Your task to perform on an android device: open a bookmark in the chrome app Image 0: 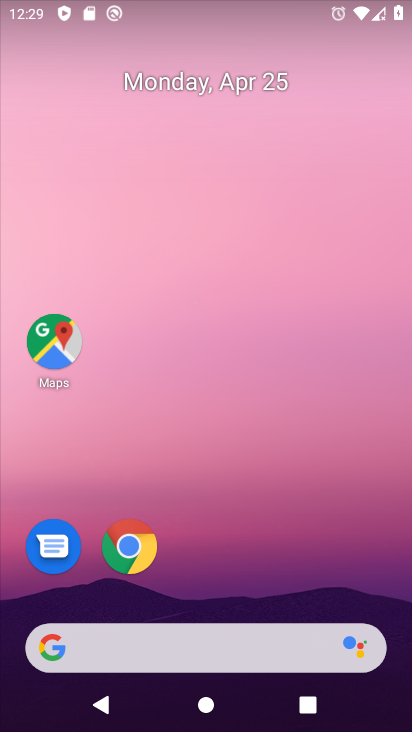
Step 0: click (136, 540)
Your task to perform on an android device: open a bookmark in the chrome app Image 1: 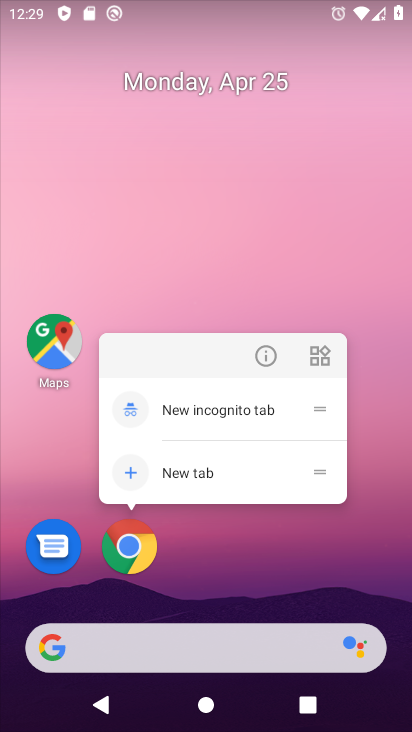
Step 1: click (128, 551)
Your task to perform on an android device: open a bookmark in the chrome app Image 2: 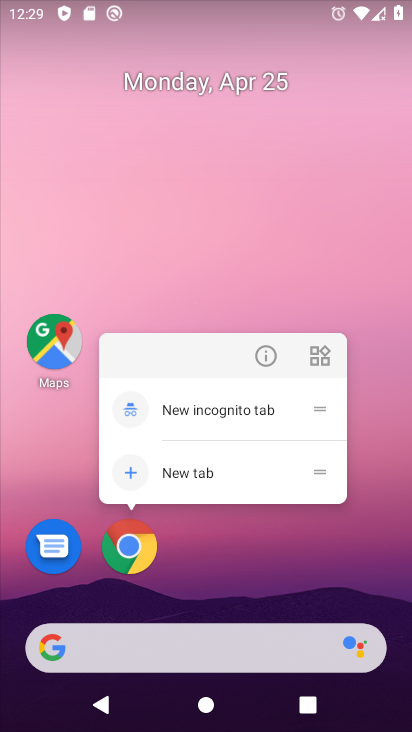
Step 2: click (207, 478)
Your task to perform on an android device: open a bookmark in the chrome app Image 3: 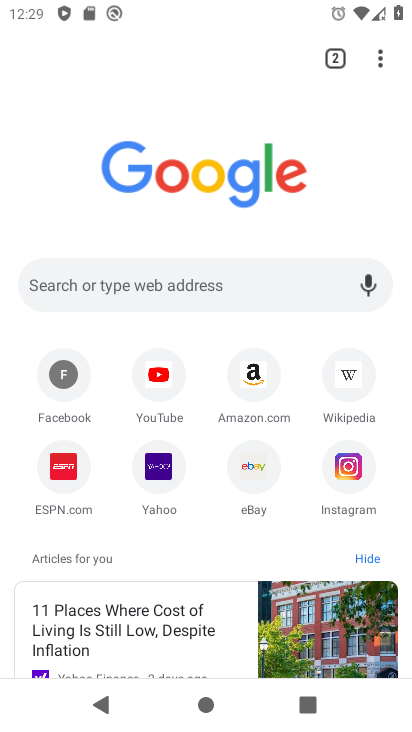
Step 3: click (378, 58)
Your task to perform on an android device: open a bookmark in the chrome app Image 4: 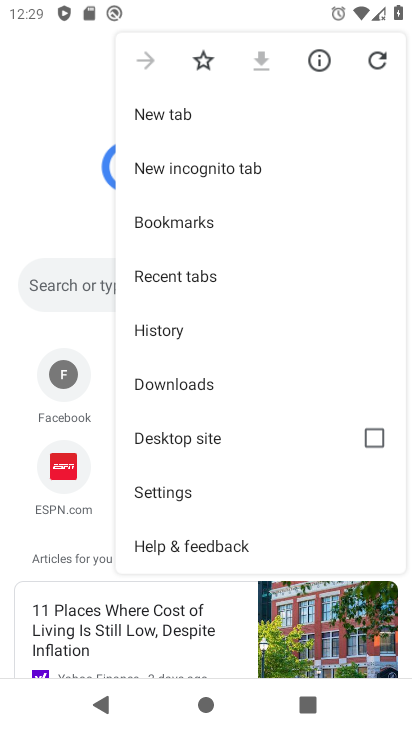
Step 4: click (169, 229)
Your task to perform on an android device: open a bookmark in the chrome app Image 5: 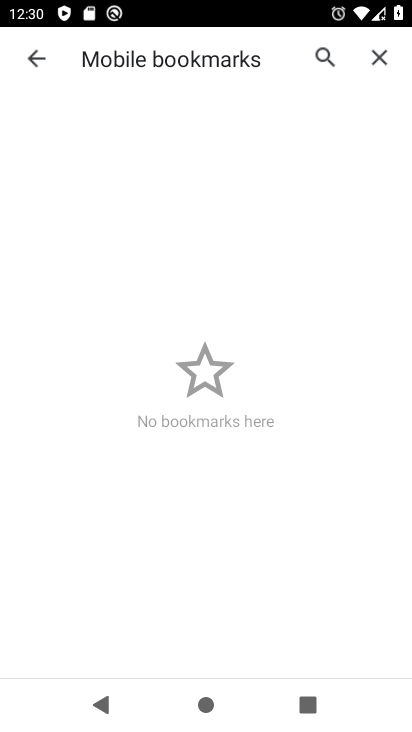
Step 5: task complete